Your task to perform on an android device: toggle show notifications on the lock screen Image 0: 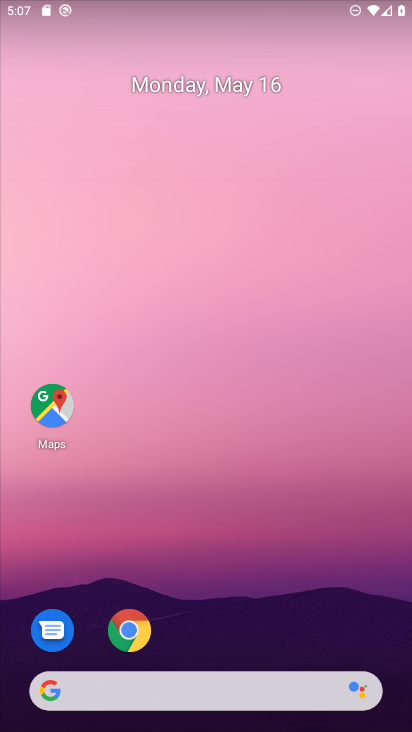
Step 0: press home button
Your task to perform on an android device: toggle show notifications on the lock screen Image 1: 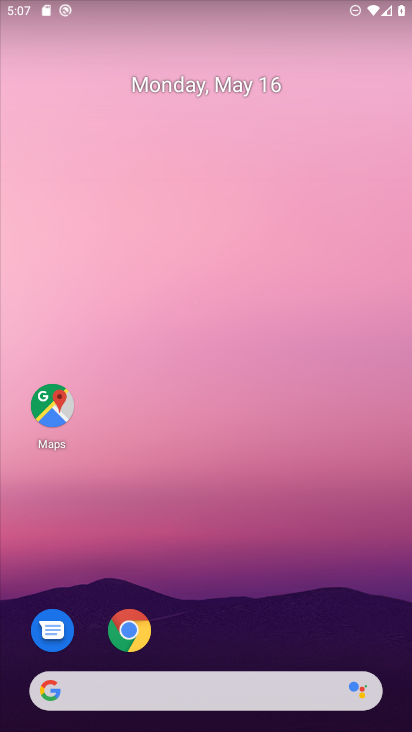
Step 1: drag from (305, 635) to (305, 588)
Your task to perform on an android device: toggle show notifications on the lock screen Image 2: 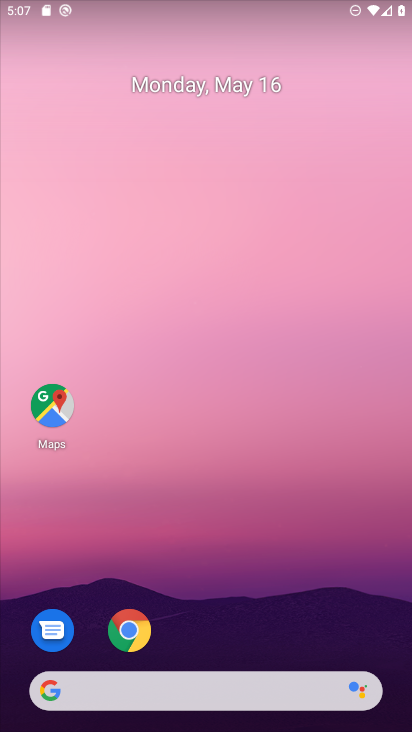
Step 2: click (305, 584)
Your task to perform on an android device: toggle show notifications on the lock screen Image 3: 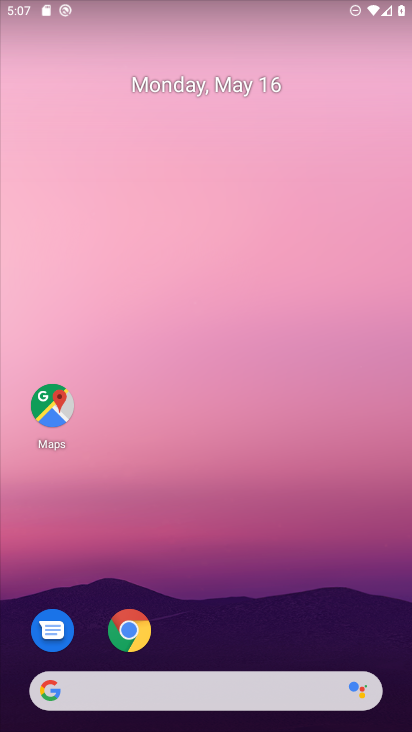
Step 3: click (216, 613)
Your task to perform on an android device: toggle show notifications on the lock screen Image 4: 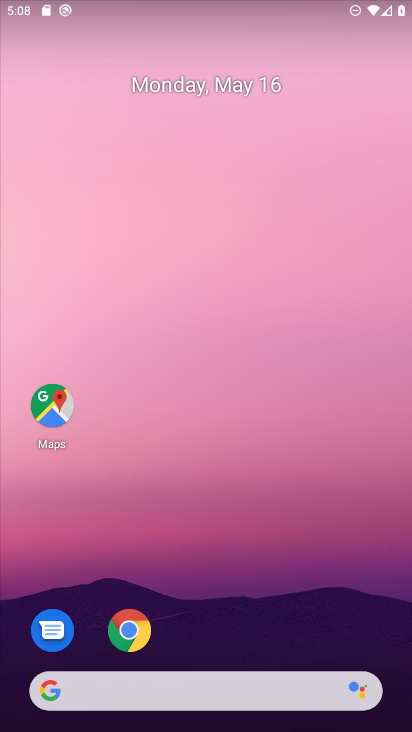
Step 4: click (197, 257)
Your task to perform on an android device: toggle show notifications on the lock screen Image 5: 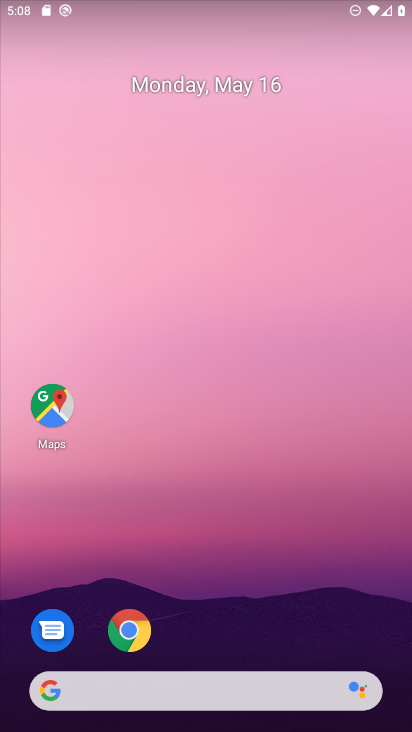
Step 5: drag from (238, 630) to (201, 0)
Your task to perform on an android device: toggle show notifications on the lock screen Image 6: 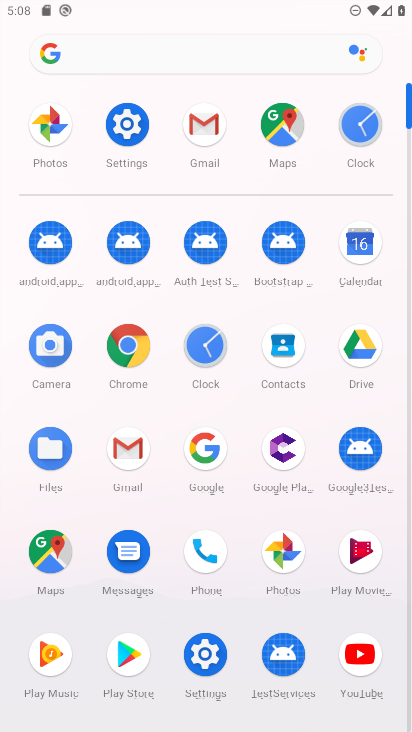
Step 6: click (140, 67)
Your task to perform on an android device: toggle show notifications on the lock screen Image 7: 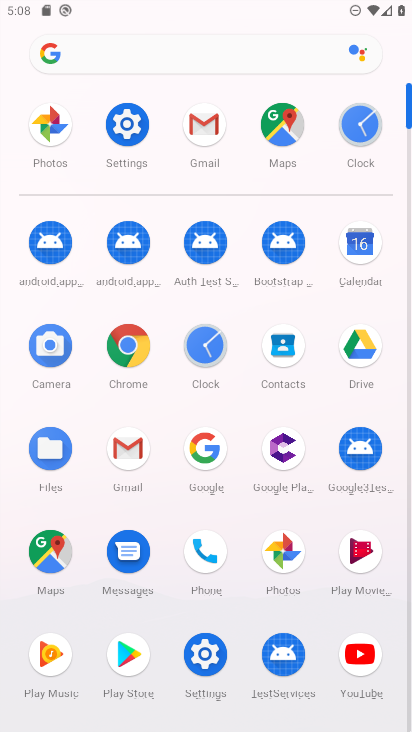
Step 7: drag from (164, 46) to (228, 2)
Your task to perform on an android device: toggle show notifications on the lock screen Image 8: 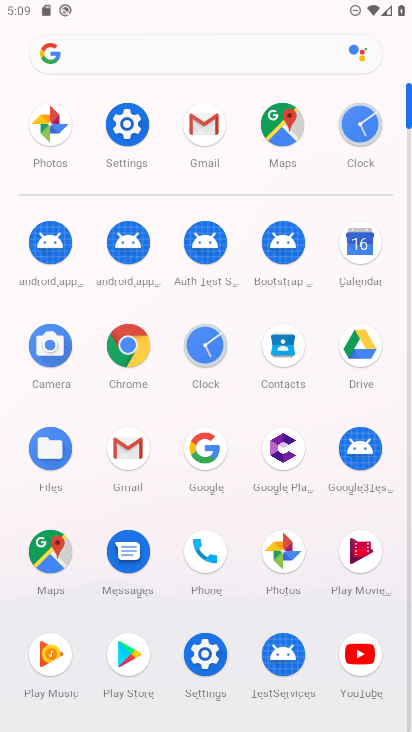
Step 8: click (120, 128)
Your task to perform on an android device: toggle show notifications on the lock screen Image 9: 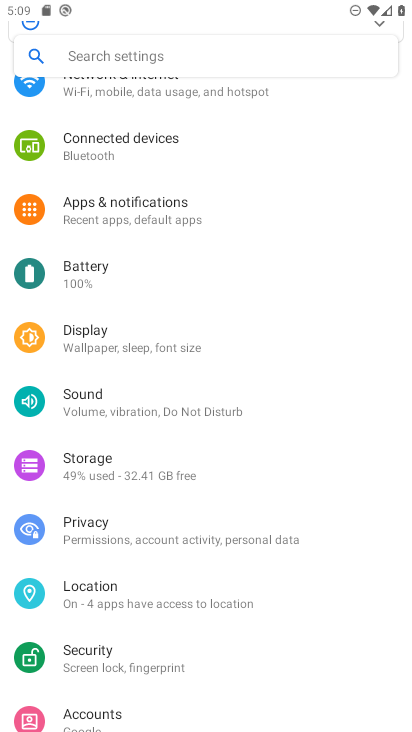
Step 9: click (169, 205)
Your task to perform on an android device: toggle show notifications on the lock screen Image 10: 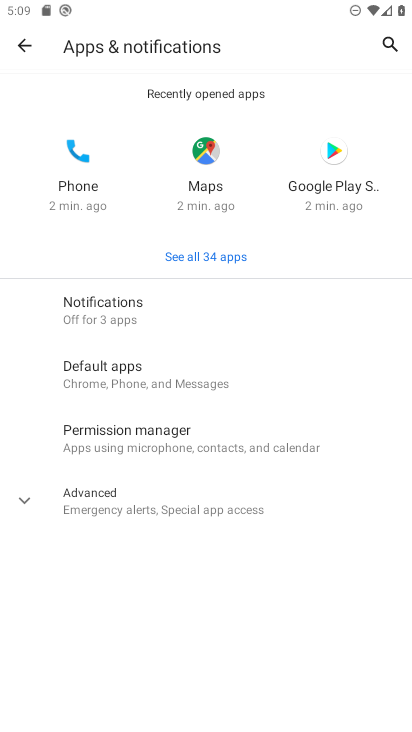
Step 10: click (145, 330)
Your task to perform on an android device: toggle show notifications on the lock screen Image 11: 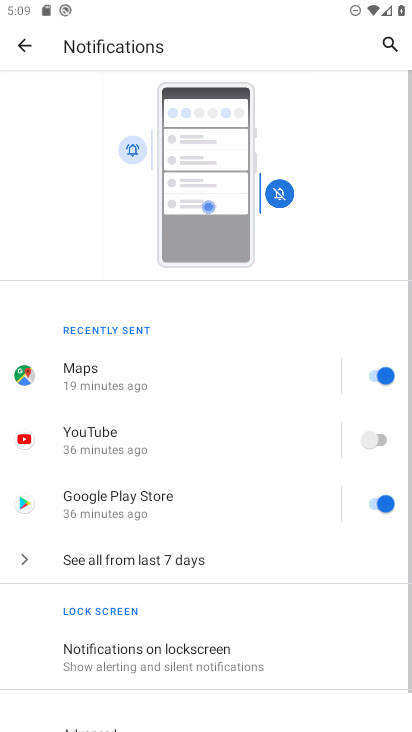
Step 11: drag from (141, 565) to (190, 388)
Your task to perform on an android device: toggle show notifications on the lock screen Image 12: 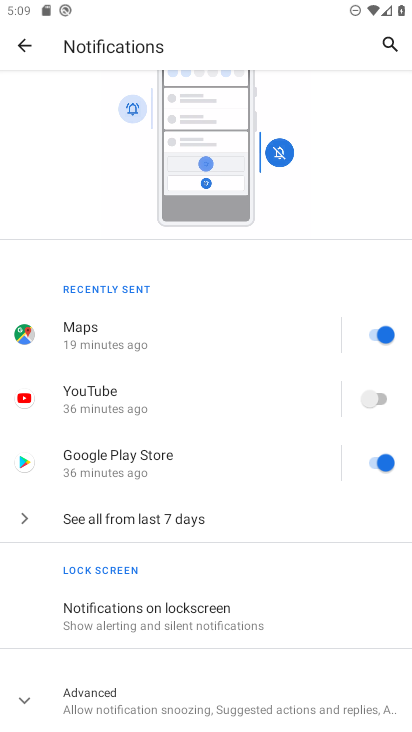
Step 12: click (133, 590)
Your task to perform on an android device: toggle show notifications on the lock screen Image 13: 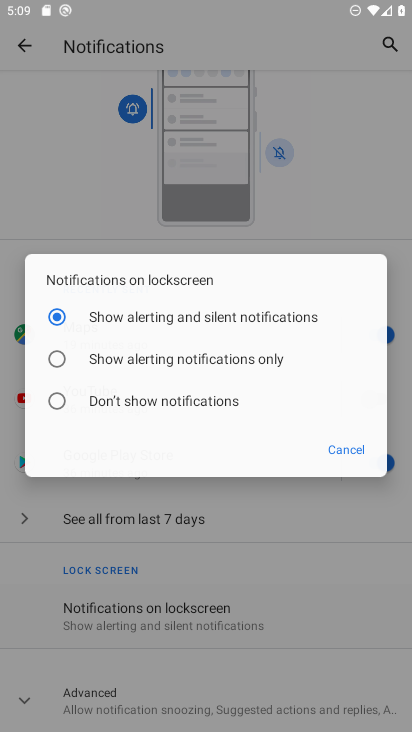
Step 13: click (133, 590)
Your task to perform on an android device: toggle show notifications on the lock screen Image 14: 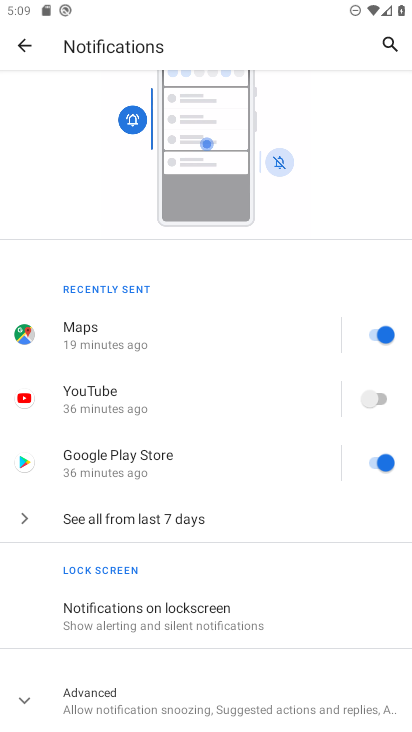
Step 14: click (111, 611)
Your task to perform on an android device: toggle show notifications on the lock screen Image 15: 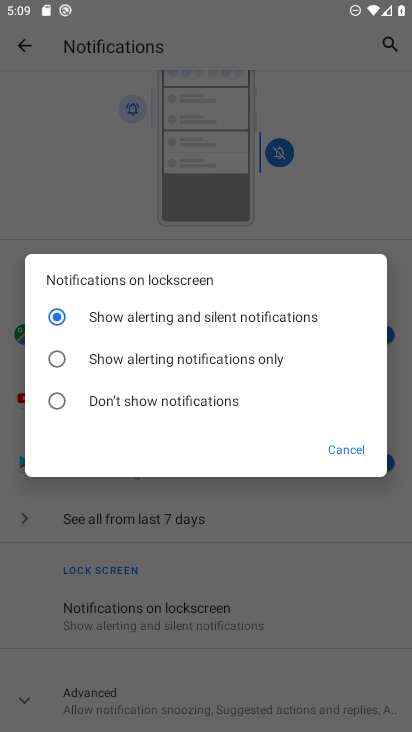
Step 15: click (75, 349)
Your task to perform on an android device: toggle show notifications on the lock screen Image 16: 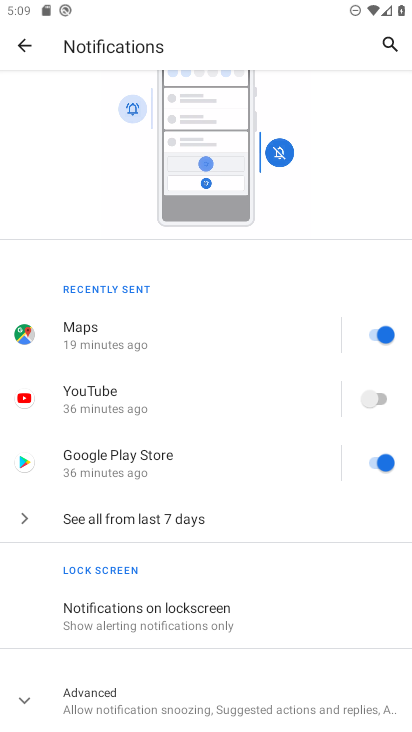
Step 16: task complete